Your task to perform on an android device: set the timer Image 0: 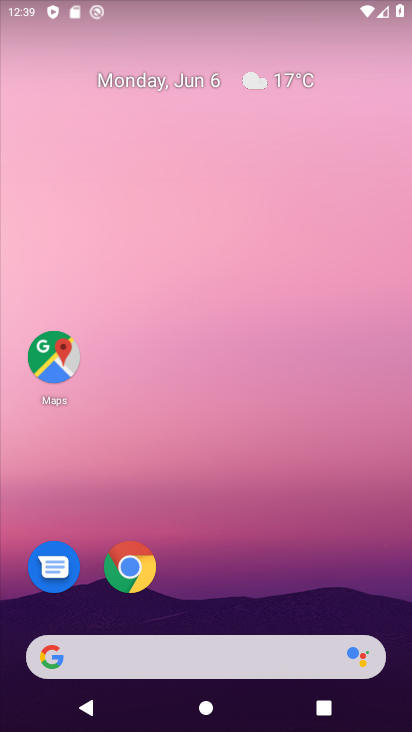
Step 0: drag from (234, 722) to (212, 10)
Your task to perform on an android device: set the timer Image 1: 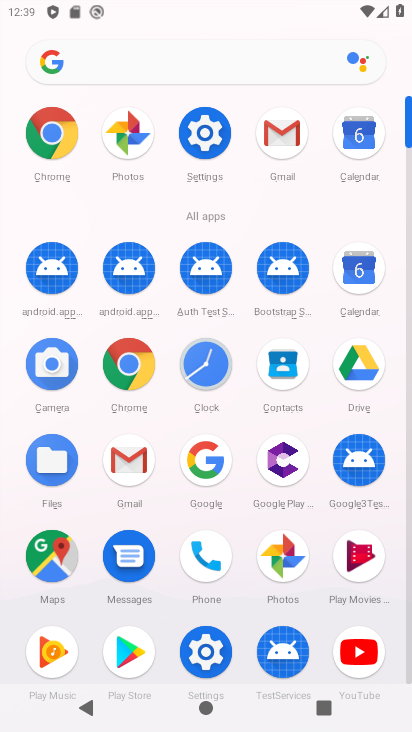
Step 1: click (208, 367)
Your task to perform on an android device: set the timer Image 2: 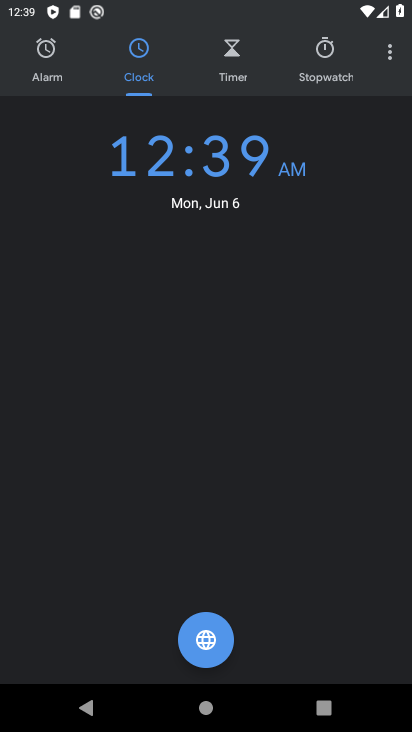
Step 2: click (227, 46)
Your task to perform on an android device: set the timer Image 3: 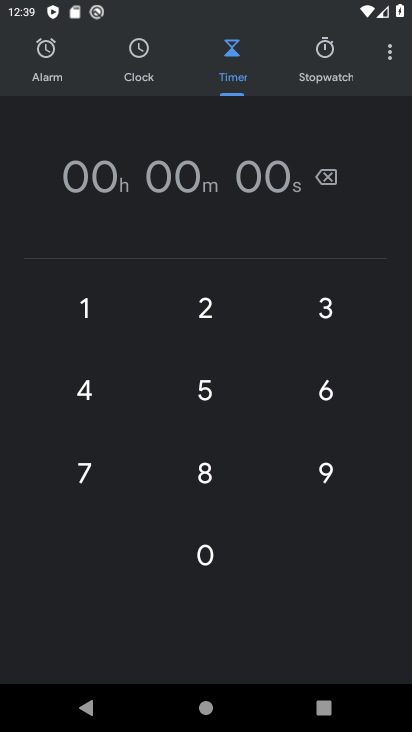
Step 3: click (207, 309)
Your task to perform on an android device: set the timer Image 4: 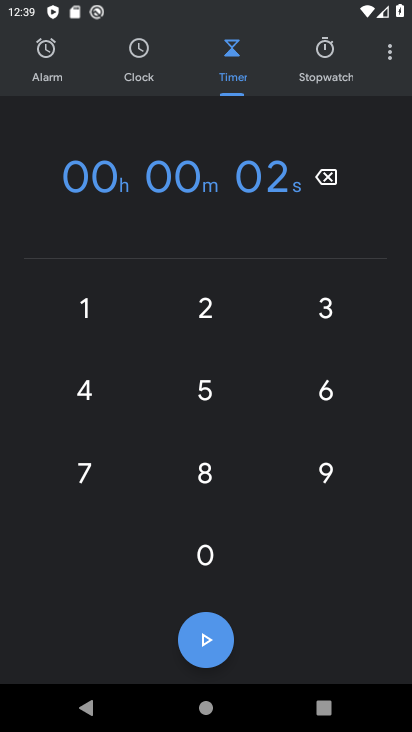
Step 4: click (85, 391)
Your task to perform on an android device: set the timer Image 5: 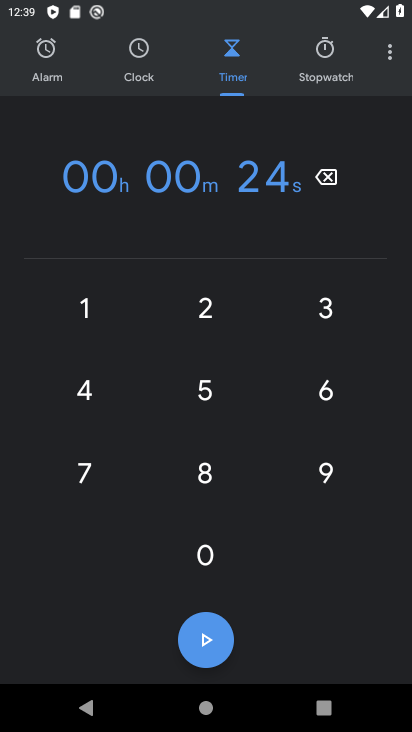
Step 5: click (326, 393)
Your task to perform on an android device: set the timer Image 6: 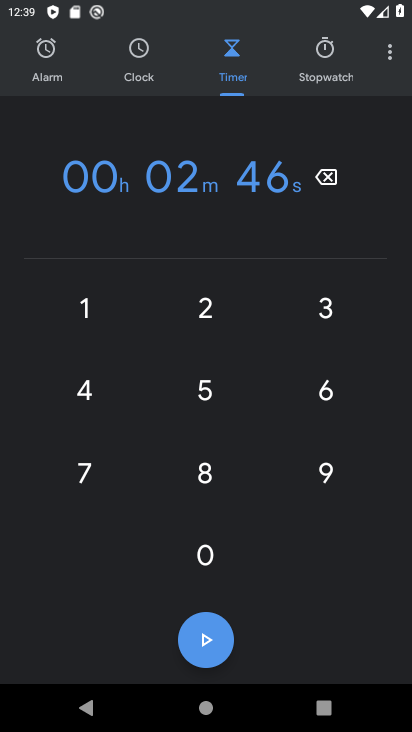
Step 6: click (211, 636)
Your task to perform on an android device: set the timer Image 7: 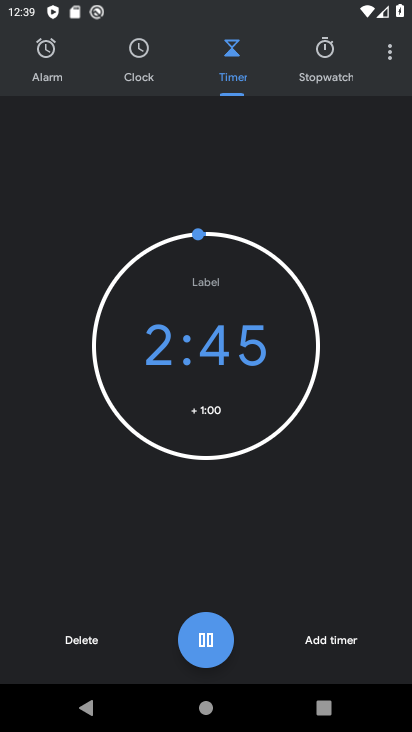
Step 7: task complete